Your task to perform on an android device: Open Maps and search for coffee Image 0: 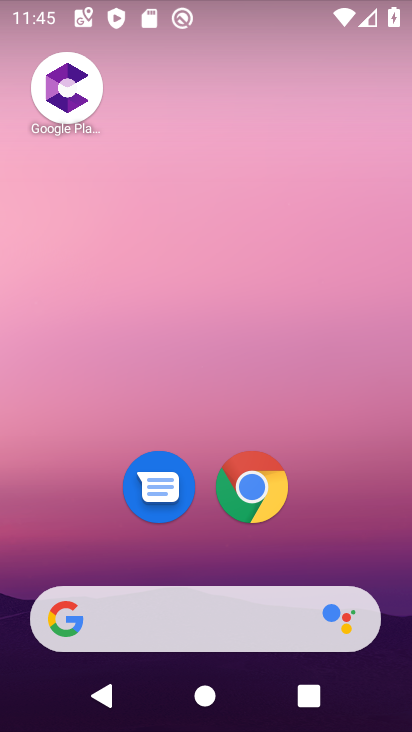
Step 0: drag from (320, 532) to (315, 52)
Your task to perform on an android device: Open Maps and search for coffee Image 1: 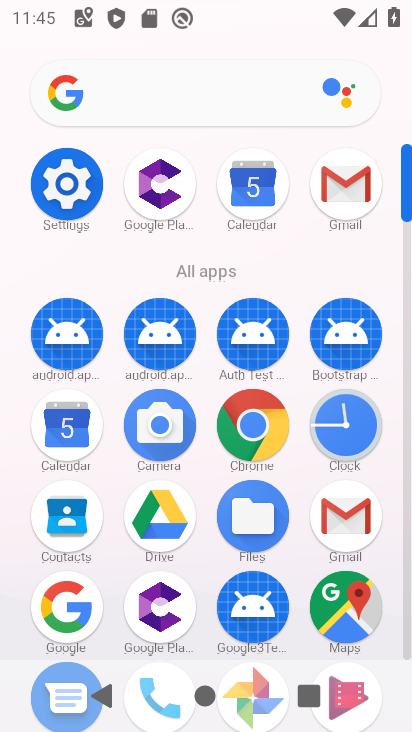
Step 1: click (357, 585)
Your task to perform on an android device: Open Maps and search for coffee Image 2: 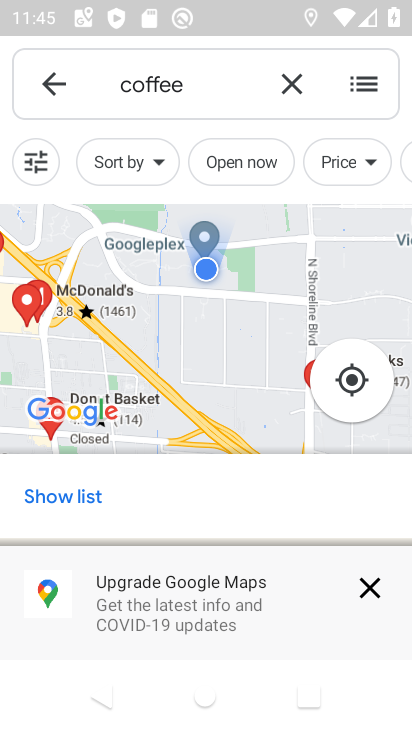
Step 2: task complete